Your task to perform on an android device: turn off location history Image 0: 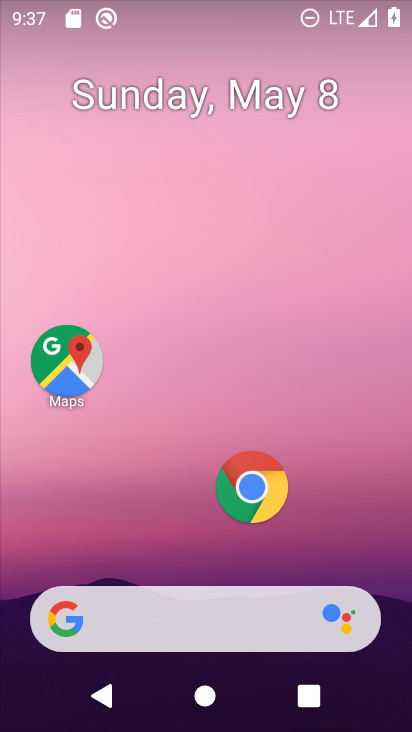
Step 0: drag from (145, 507) to (242, 113)
Your task to perform on an android device: turn off location history Image 1: 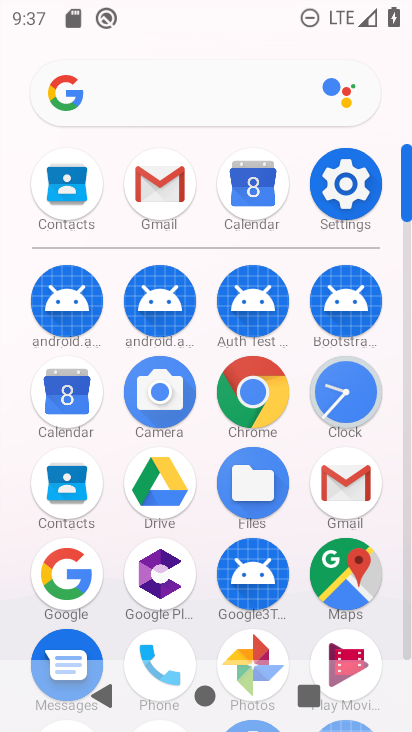
Step 1: click (340, 184)
Your task to perform on an android device: turn off location history Image 2: 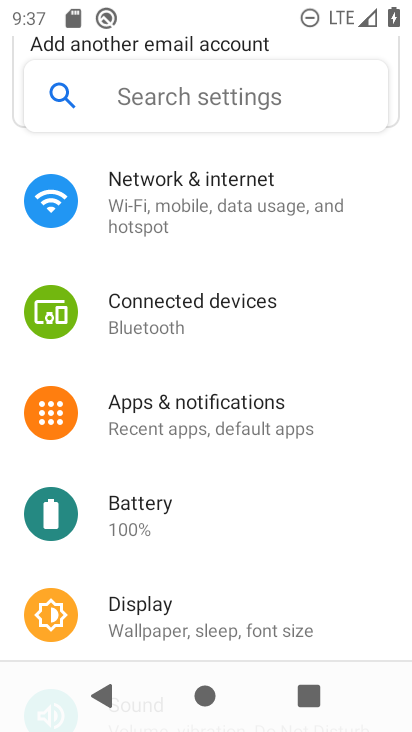
Step 2: drag from (198, 479) to (205, 245)
Your task to perform on an android device: turn off location history Image 3: 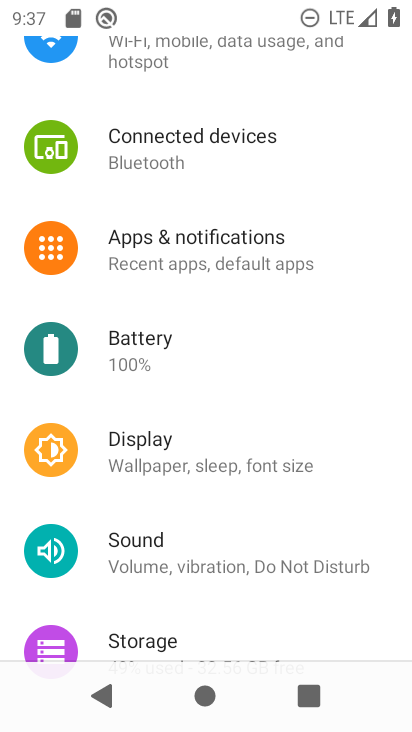
Step 3: drag from (228, 409) to (239, 152)
Your task to perform on an android device: turn off location history Image 4: 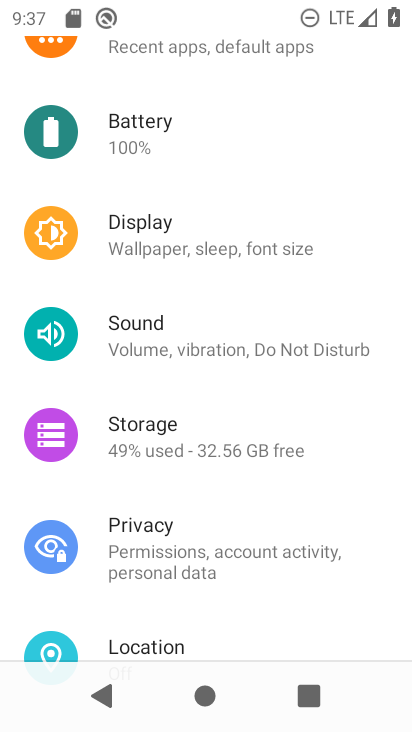
Step 4: drag from (247, 605) to (253, 387)
Your task to perform on an android device: turn off location history Image 5: 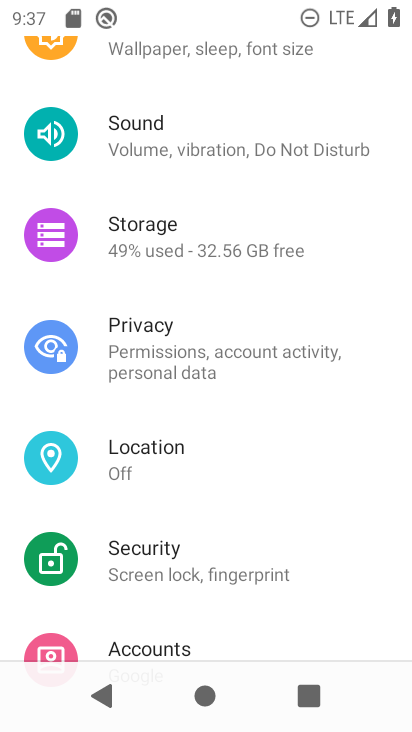
Step 5: click (221, 449)
Your task to perform on an android device: turn off location history Image 6: 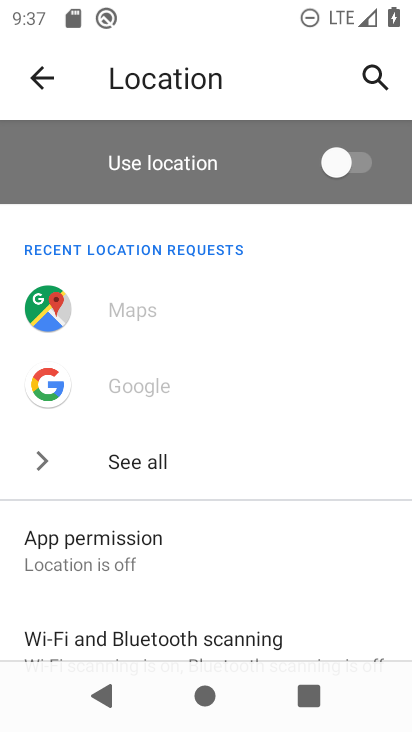
Step 6: task complete